Your task to perform on an android device: turn on the 24-hour format for clock Image 0: 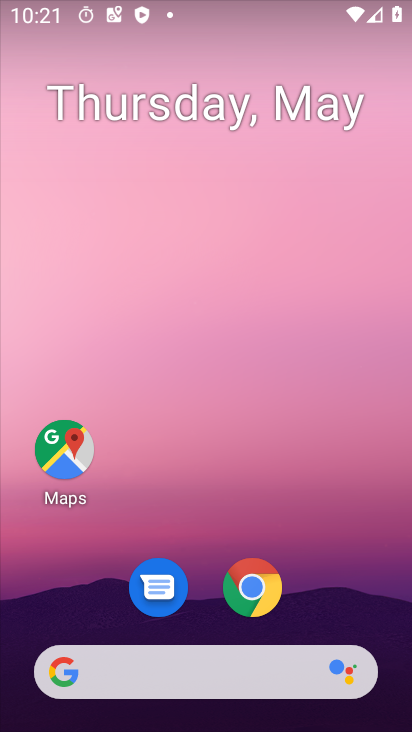
Step 0: drag from (346, 633) to (328, 20)
Your task to perform on an android device: turn on the 24-hour format for clock Image 1: 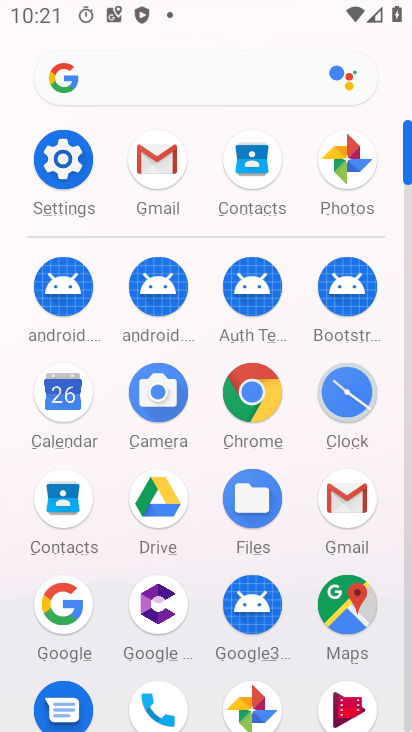
Step 1: click (351, 399)
Your task to perform on an android device: turn on the 24-hour format for clock Image 2: 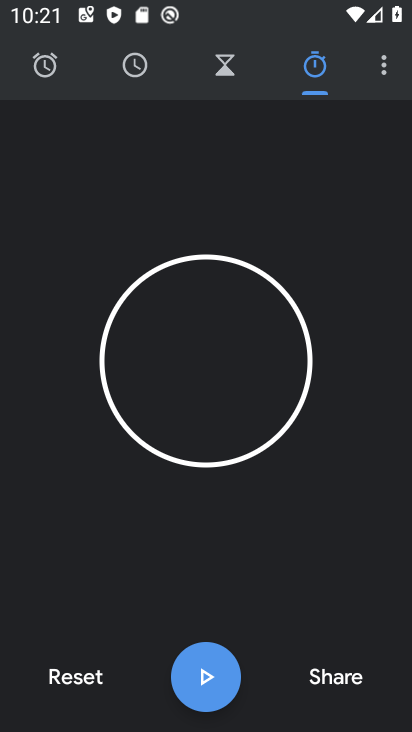
Step 2: click (385, 70)
Your task to perform on an android device: turn on the 24-hour format for clock Image 3: 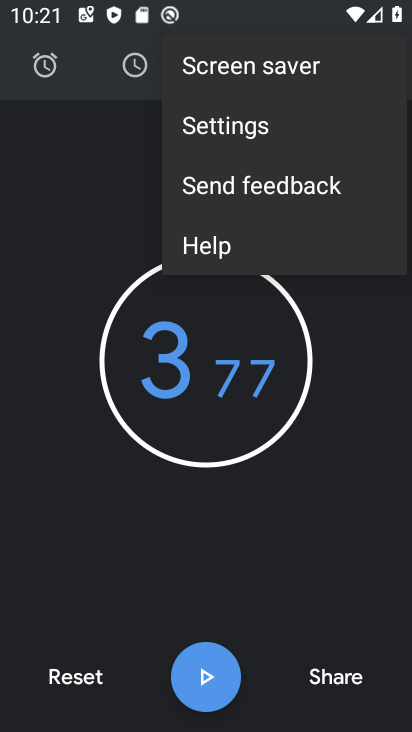
Step 3: click (231, 129)
Your task to perform on an android device: turn on the 24-hour format for clock Image 4: 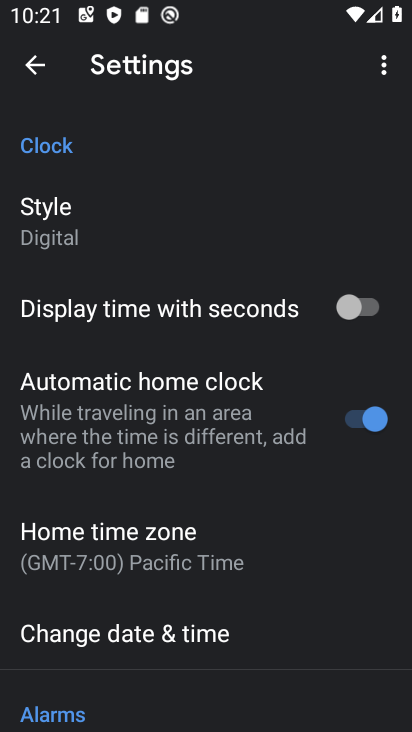
Step 4: click (87, 634)
Your task to perform on an android device: turn on the 24-hour format for clock Image 5: 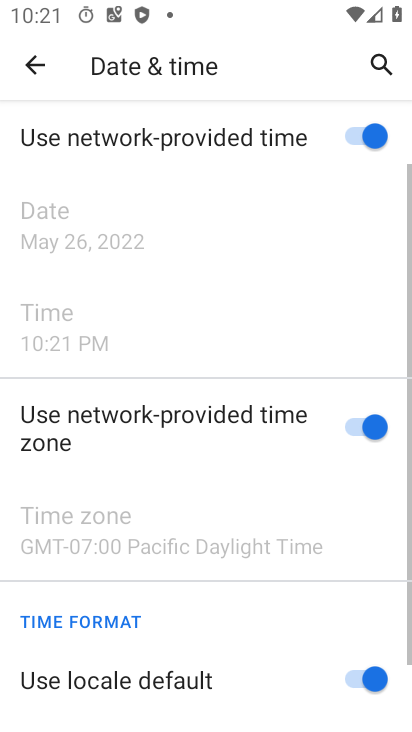
Step 5: drag from (183, 601) to (201, 118)
Your task to perform on an android device: turn on the 24-hour format for clock Image 6: 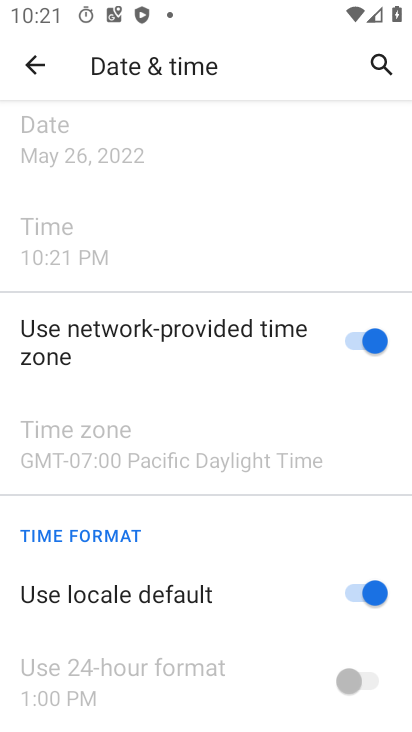
Step 6: click (365, 600)
Your task to perform on an android device: turn on the 24-hour format for clock Image 7: 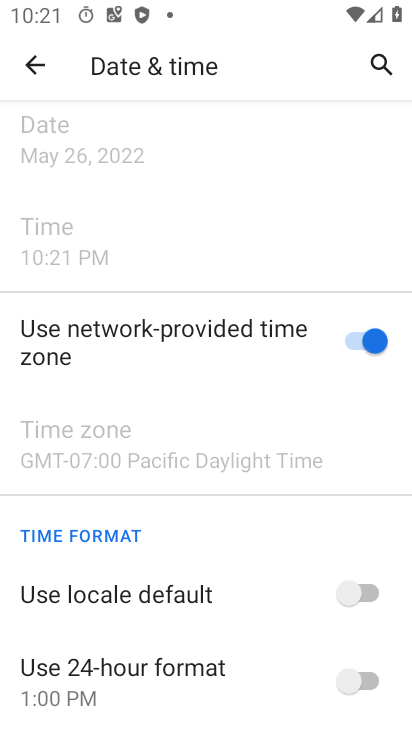
Step 7: click (358, 678)
Your task to perform on an android device: turn on the 24-hour format for clock Image 8: 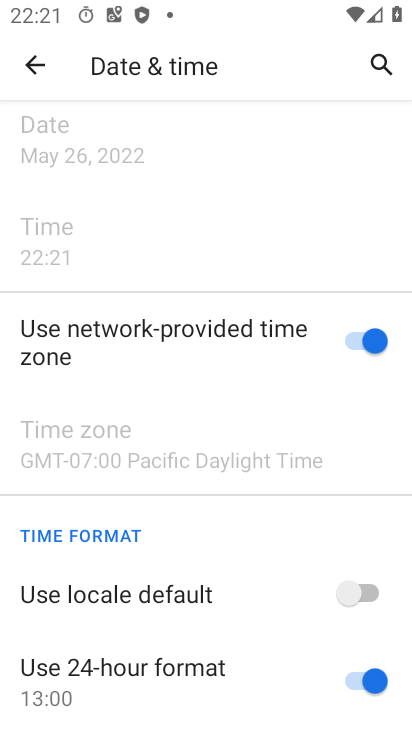
Step 8: task complete